Your task to perform on an android device: check storage Image 0: 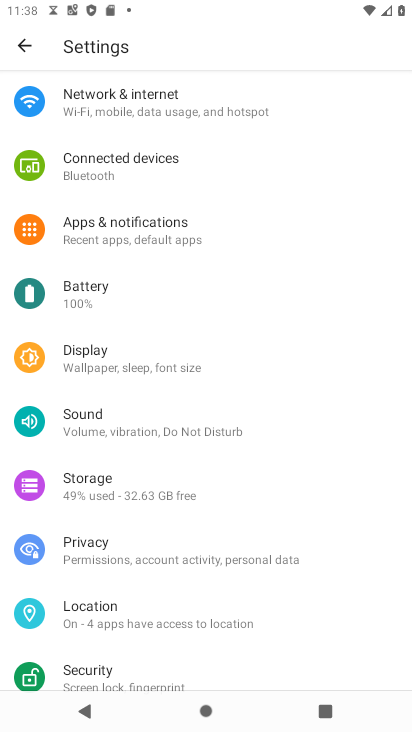
Step 0: click (121, 468)
Your task to perform on an android device: check storage Image 1: 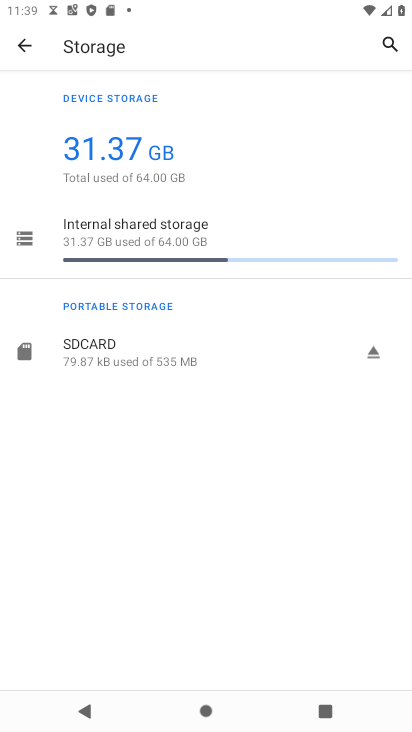
Step 1: task complete